Your task to perform on an android device: check data usage Image 0: 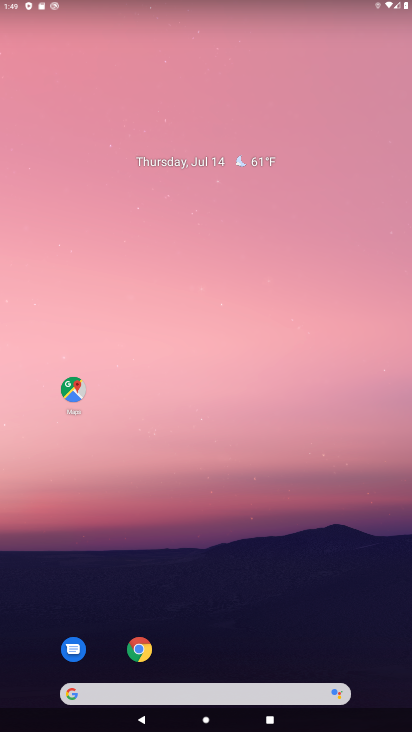
Step 0: press home button
Your task to perform on an android device: check data usage Image 1: 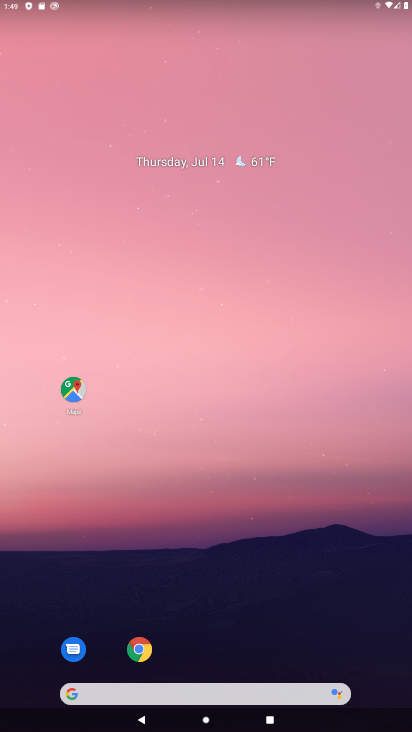
Step 1: drag from (201, 669) to (278, 35)
Your task to perform on an android device: check data usage Image 2: 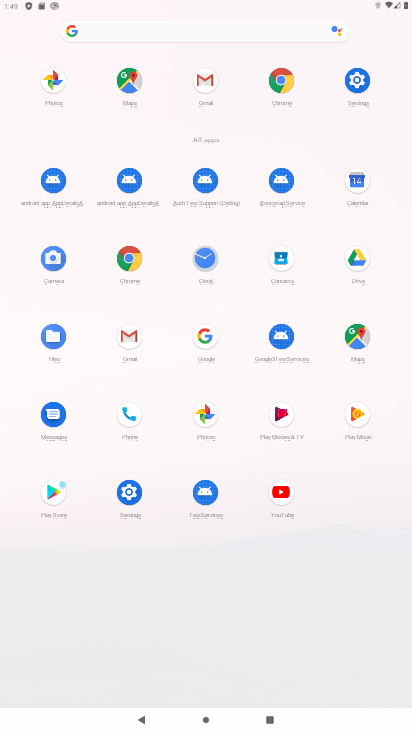
Step 2: click (359, 76)
Your task to perform on an android device: check data usage Image 3: 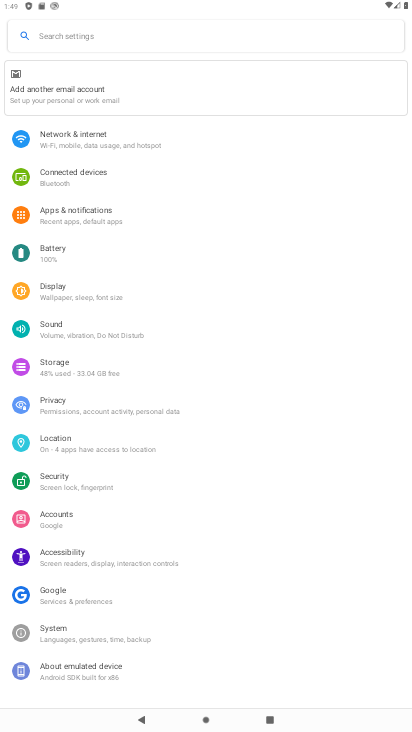
Step 3: click (96, 133)
Your task to perform on an android device: check data usage Image 4: 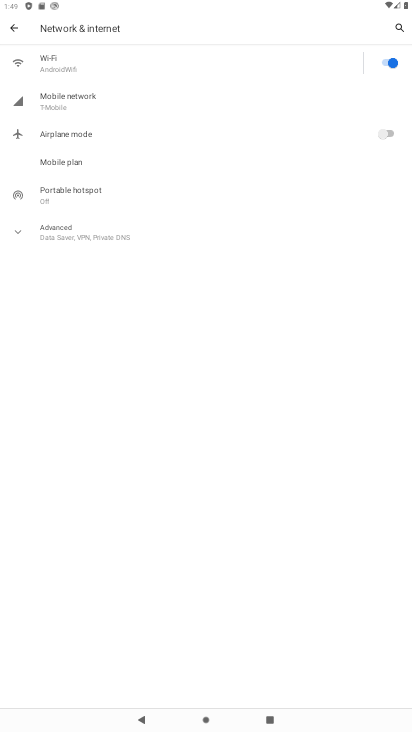
Step 4: click (88, 96)
Your task to perform on an android device: check data usage Image 5: 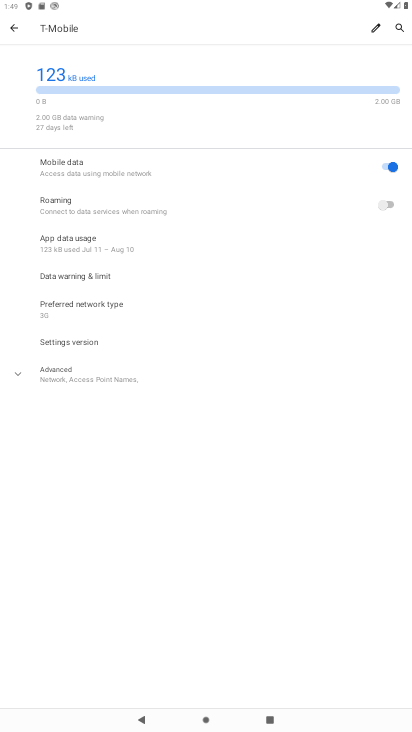
Step 5: click (104, 241)
Your task to perform on an android device: check data usage Image 6: 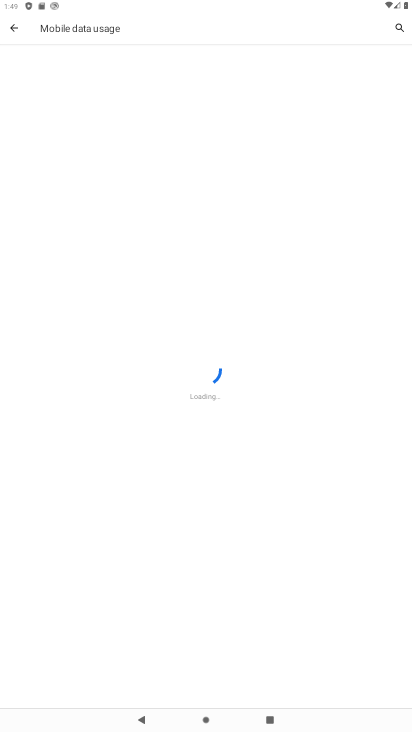
Step 6: task complete